Your task to perform on an android device: Go to notification settings Image 0: 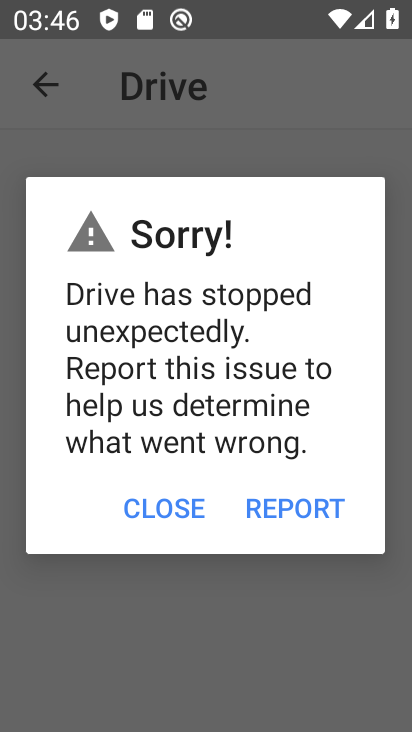
Step 0: press back button
Your task to perform on an android device: Go to notification settings Image 1: 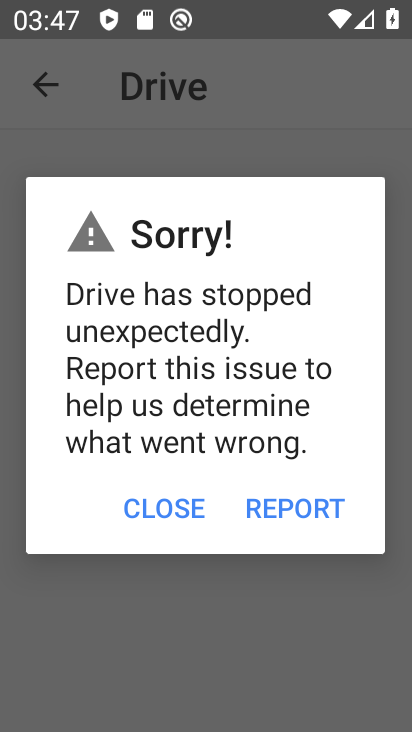
Step 1: click (144, 505)
Your task to perform on an android device: Go to notification settings Image 2: 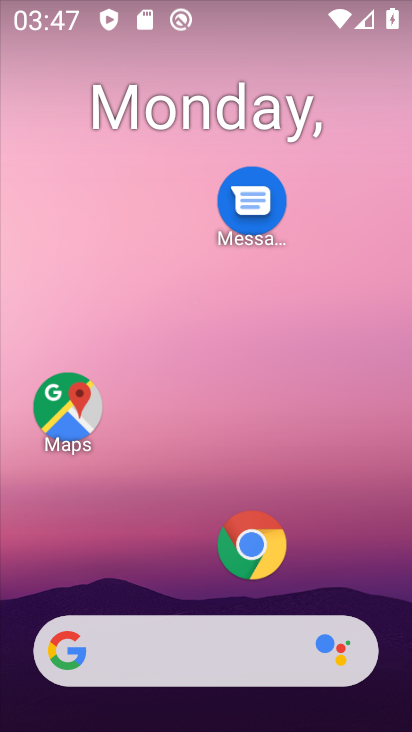
Step 2: drag from (142, 575) to (300, 54)
Your task to perform on an android device: Go to notification settings Image 3: 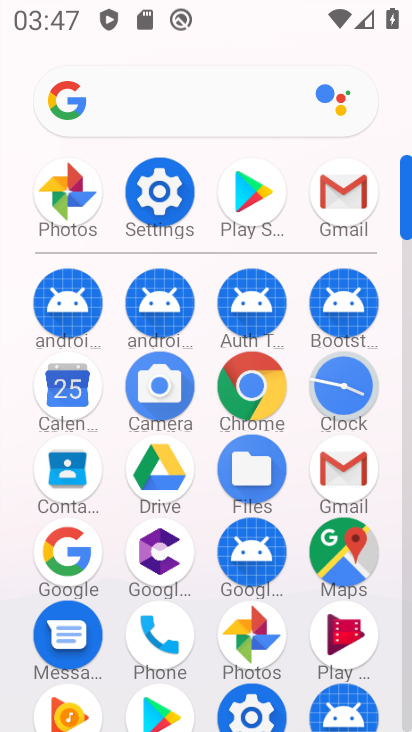
Step 3: click (166, 184)
Your task to perform on an android device: Go to notification settings Image 4: 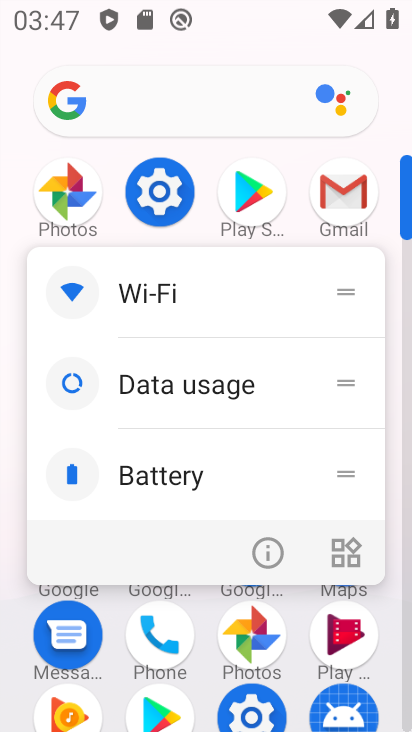
Step 4: click (153, 182)
Your task to perform on an android device: Go to notification settings Image 5: 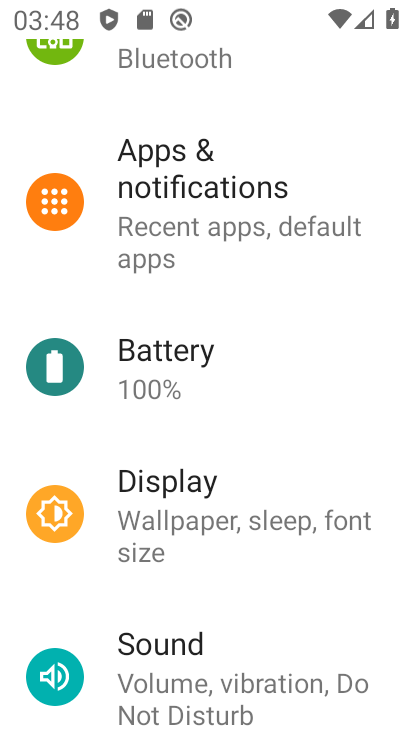
Step 5: click (191, 202)
Your task to perform on an android device: Go to notification settings Image 6: 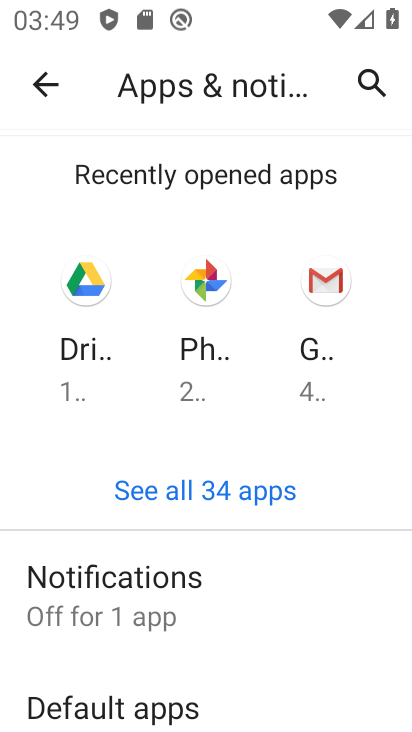
Step 6: click (158, 602)
Your task to perform on an android device: Go to notification settings Image 7: 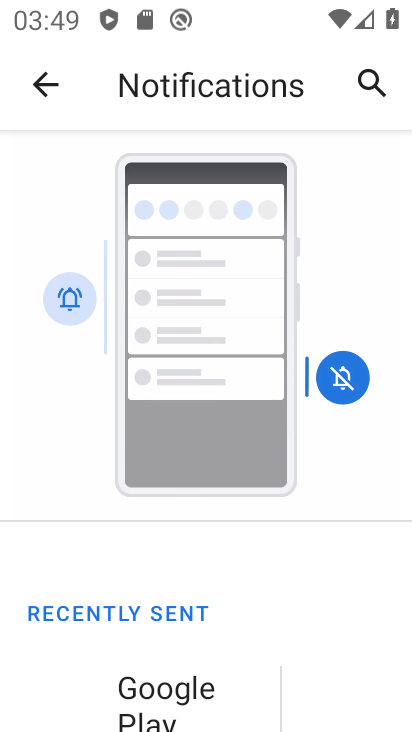
Step 7: task complete